Your task to perform on an android device: Is it going to rain today? Image 0: 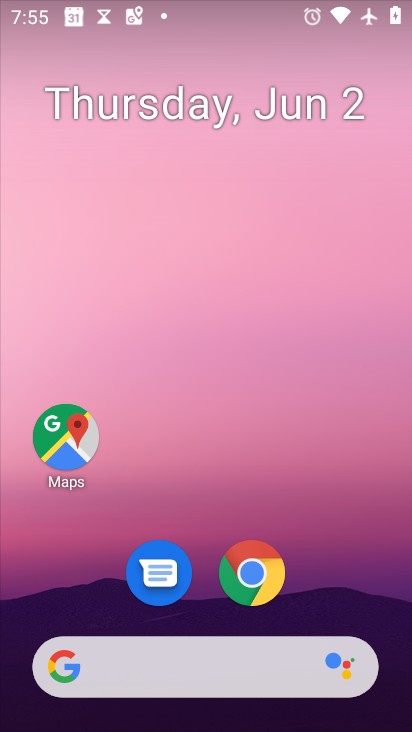
Step 0: click (75, 669)
Your task to perform on an android device: Is it going to rain today? Image 1: 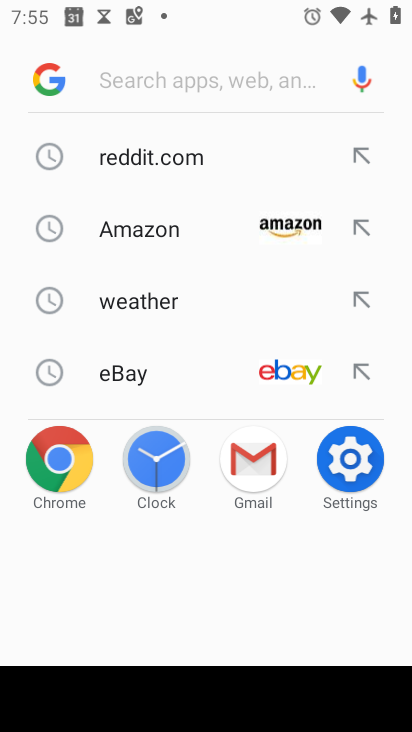
Step 1: click (182, 306)
Your task to perform on an android device: Is it going to rain today? Image 2: 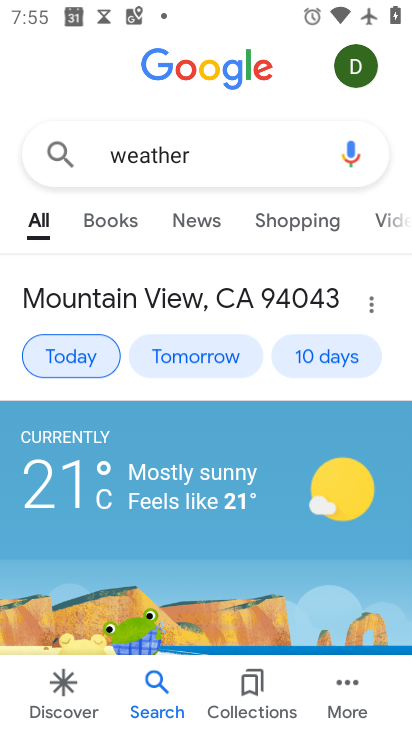
Step 2: task complete